Your task to perform on an android device: check out phone information Image 0: 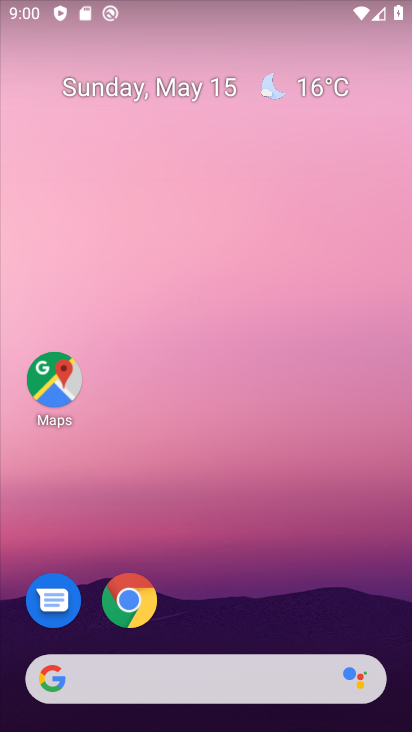
Step 0: drag from (248, 624) to (248, 363)
Your task to perform on an android device: check out phone information Image 1: 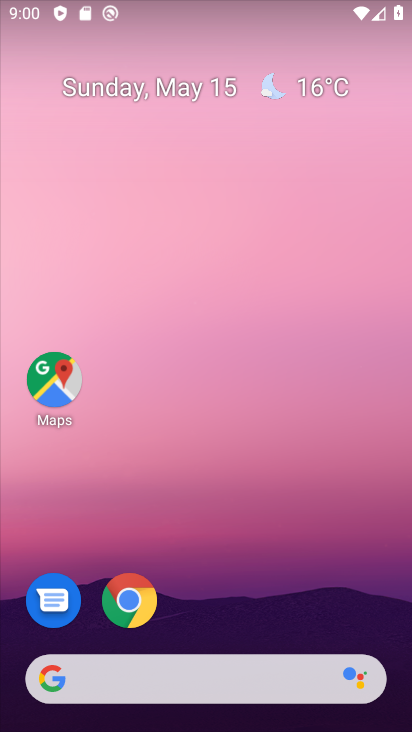
Step 1: drag from (269, 622) to (249, 382)
Your task to perform on an android device: check out phone information Image 2: 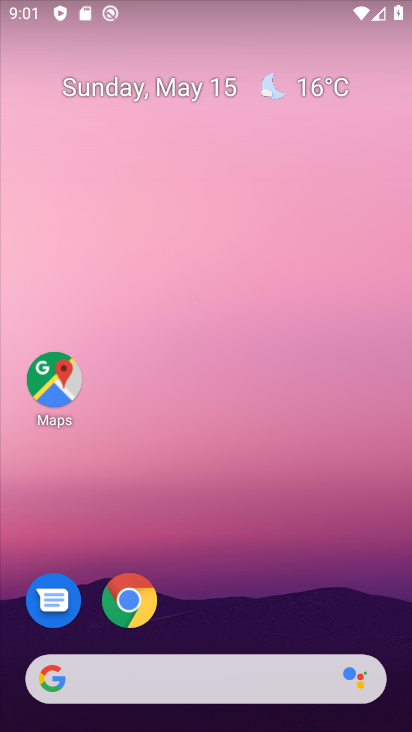
Step 2: drag from (197, 610) to (192, 250)
Your task to perform on an android device: check out phone information Image 3: 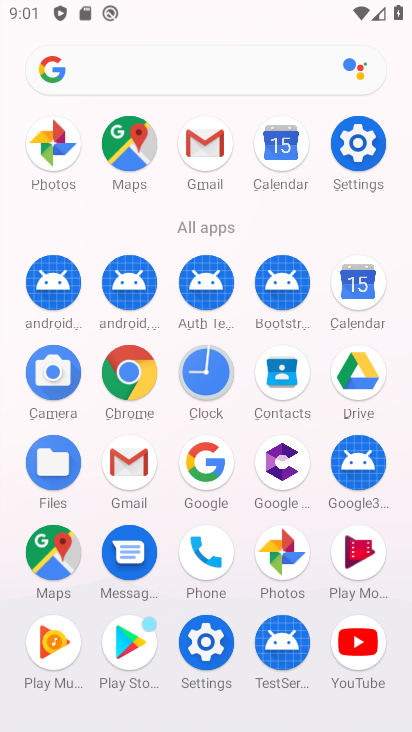
Step 3: click (192, 589)
Your task to perform on an android device: check out phone information Image 4: 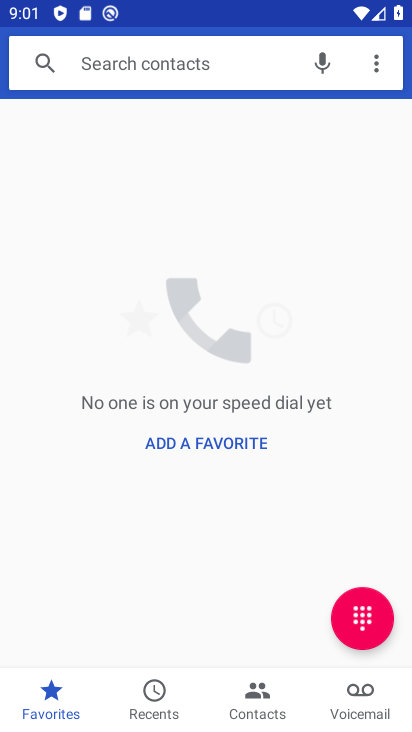
Step 4: drag from (375, 56) to (346, 118)
Your task to perform on an android device: check out phone information Image 5: 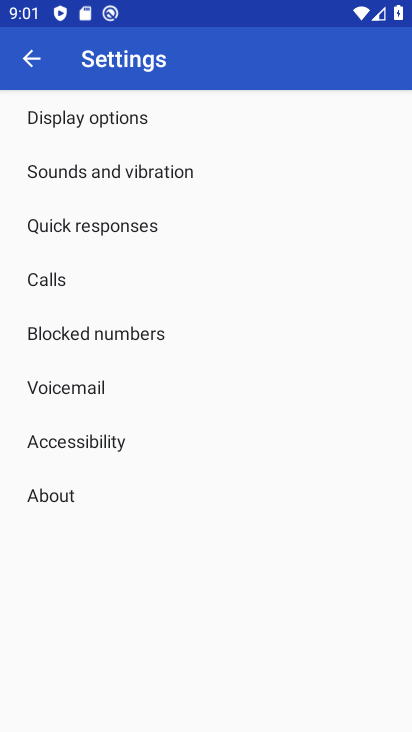
Step 5: click (83, 500)
Your task to perform on an android device: check out phone information Image 6: 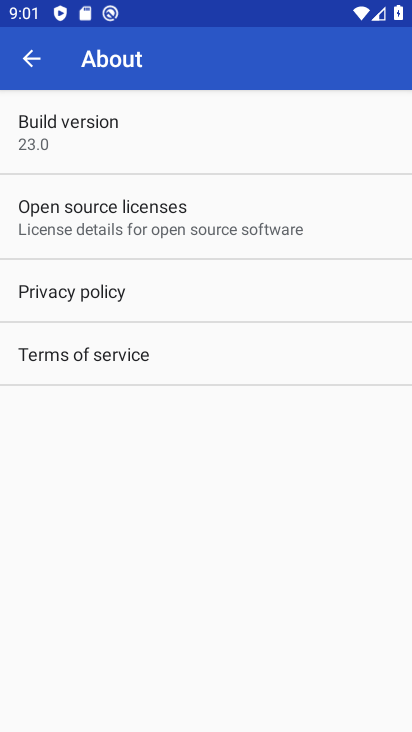
Step 6: task complete